Your task to perform on an android device: check storage Image 0: 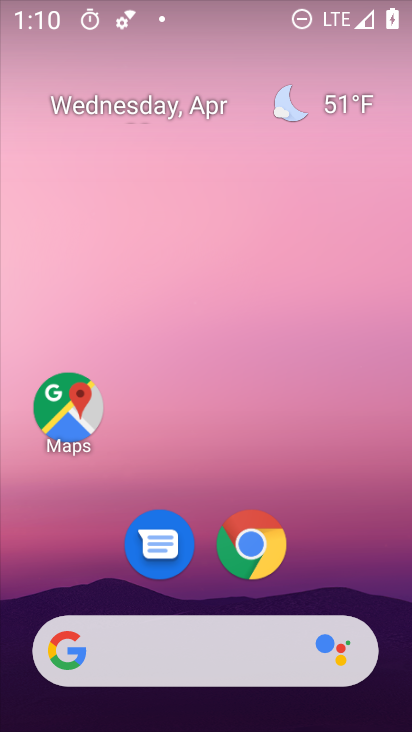
Step 0: drag from (357, 551) to (353, 98)
Your task to perform on an android device: check storage Image 1: 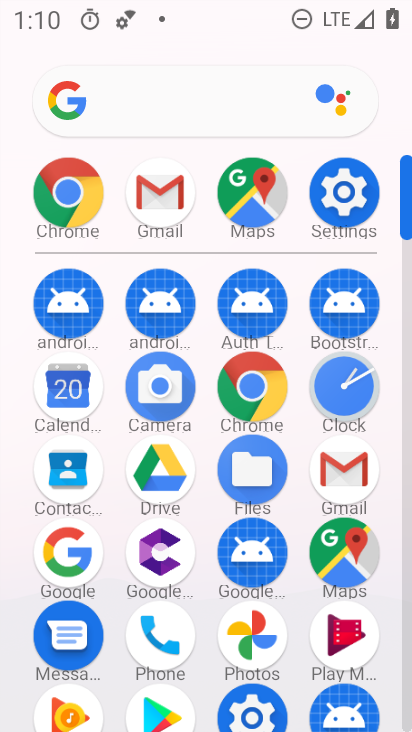
Step 1: click (356, 208)
Your task to perform on an android device: check storage Image 2: 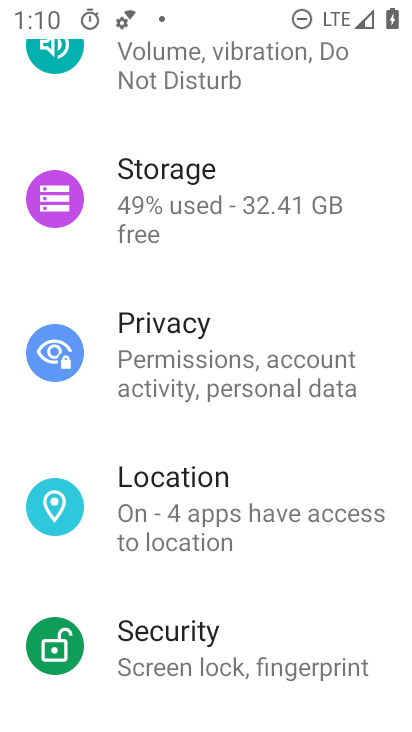
Step 2: drag from (371, 569) to (379, 433)
Your task to perform on an android device: check storage Image 3: 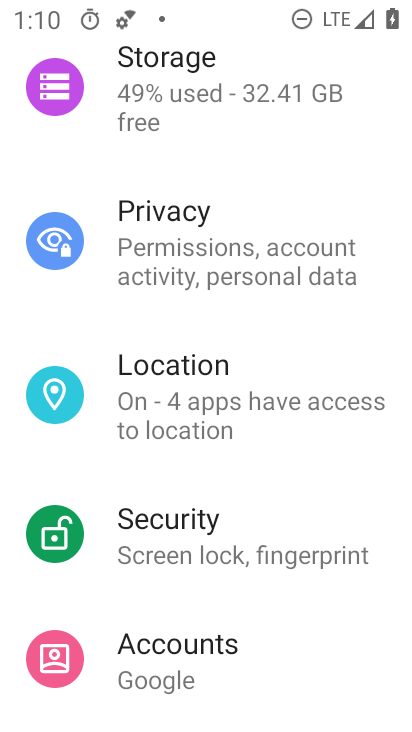
Step 3: drag from (383, 631) to (389, 473)
Your task to perform on an android device: check storage Image 4: 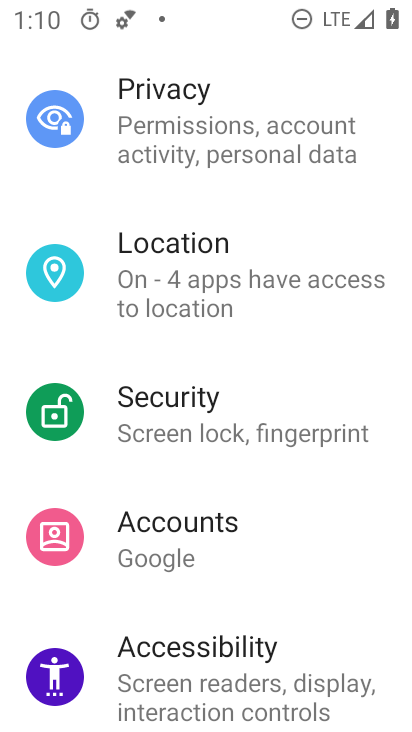
Step 4: drag from (356, 566) to (352, 379)
Your task to perform on an android device: check storage Image 5: 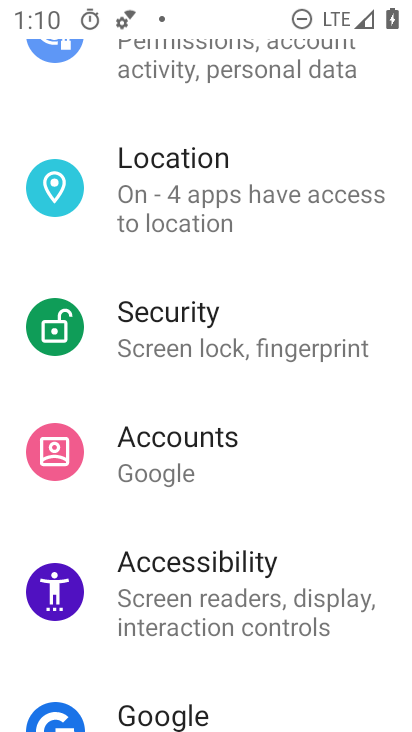
Step 5: drag from (374, 560) to (384, 404)
Your task to perform on an android device: check storage Image 6: 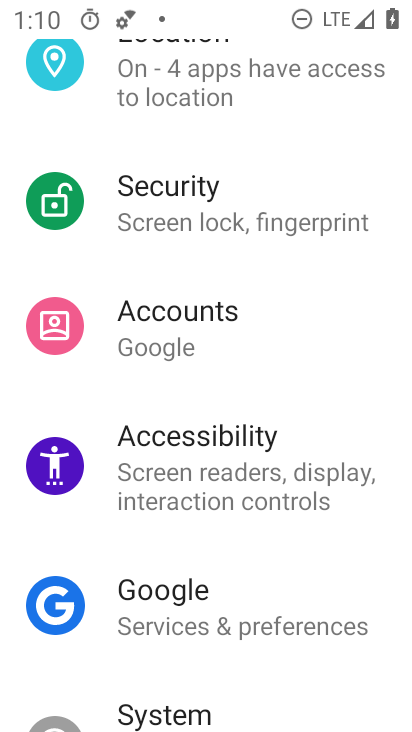
Step 6: drag from (373, 687) to (377, 579)
Your task to perform on an android device: check storage Image 7: 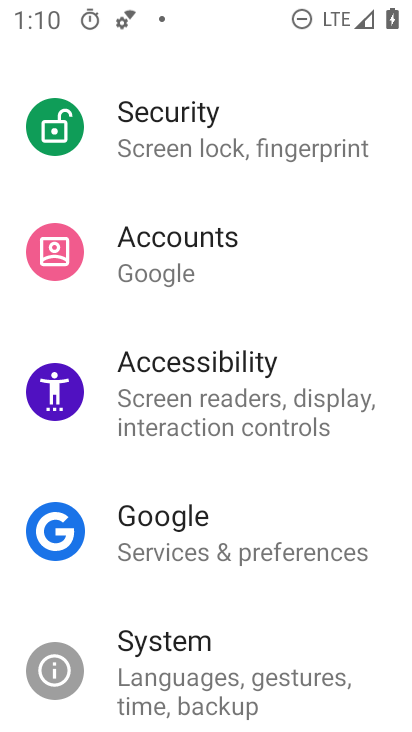
Step 7: drag from (360, 565) to (326, 383)
Your task to perform on an android device: check storage Image 8: 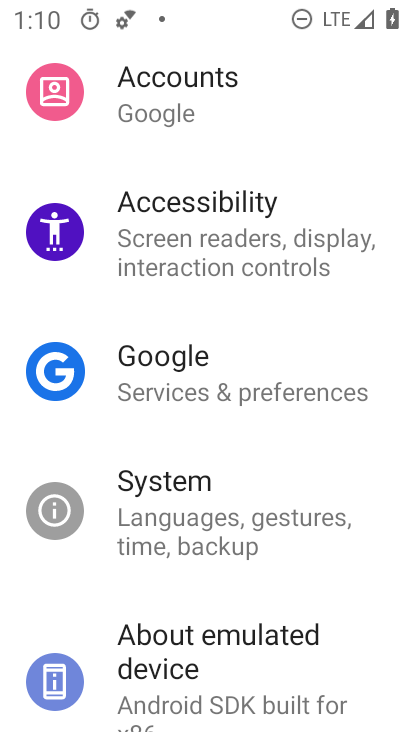
Step 8: drag from (367, 591) to (333, 381)
Your task to perform on an android device: check storage Image 9: 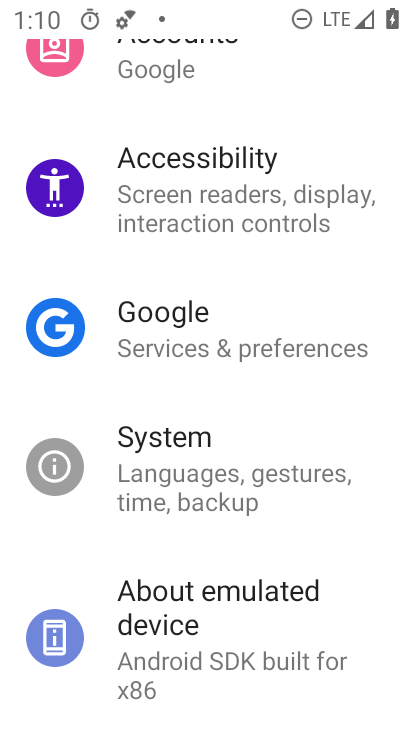
Step 9: drag from (392, 564) to (375, 399)
Your task to perform on an android device: check storage Image 10: 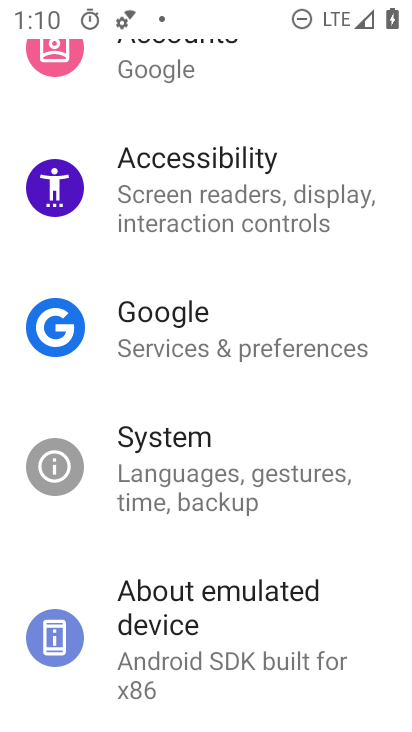
Step 10: drag from (386, 287) to (391, 484)
Your task to perform on an android device: check storage Image 11: 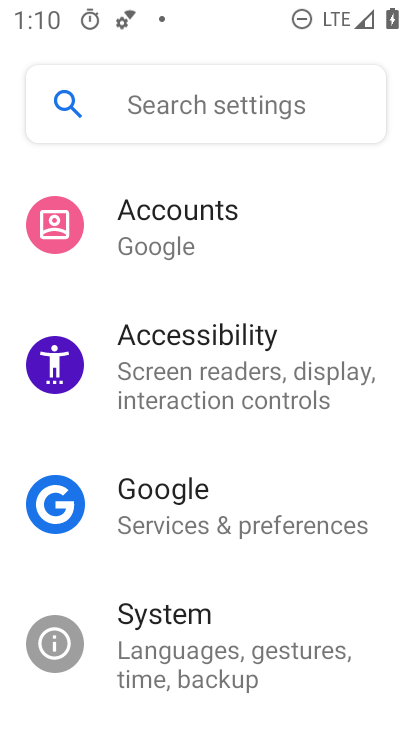
Step 11: drag from (379, 287) to (371, 471)
Your task to perform on an android device: check storage Image 12: 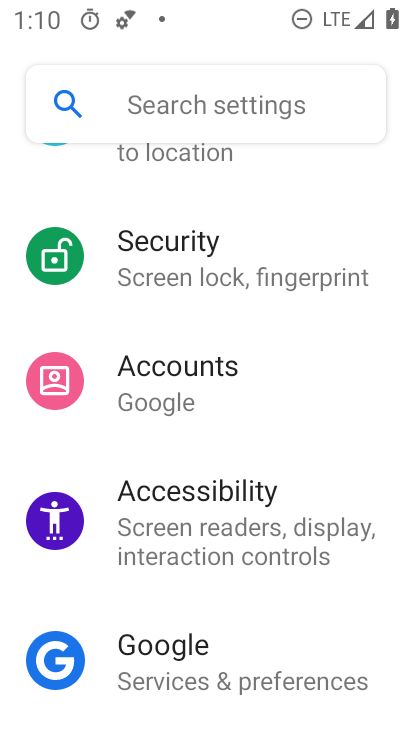
Step 12: drag from (371, 298) to (395, 473)
Your task to perform on an android device: check storage Image 13: 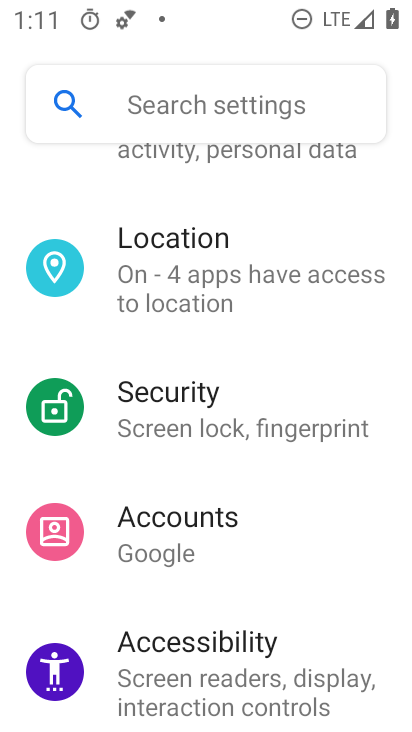
Step 13: drag from (376, 343) to (368, 502)
Your task to perform on an android device: check storage Image 14: 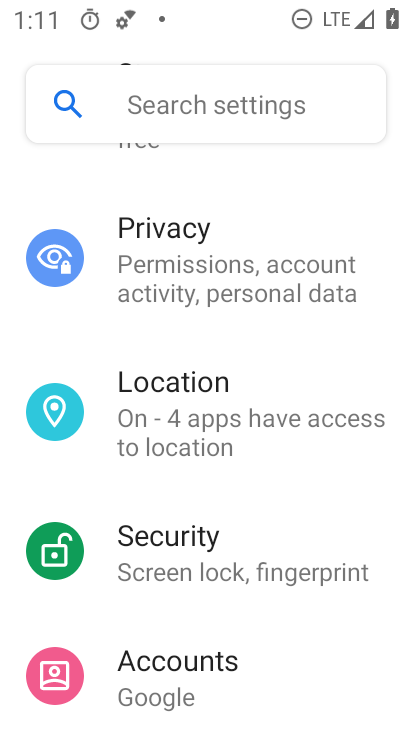
Step 14: drag from (363, 362) to (363, 487)
Your task to perform on an android device: check storage Image 15: 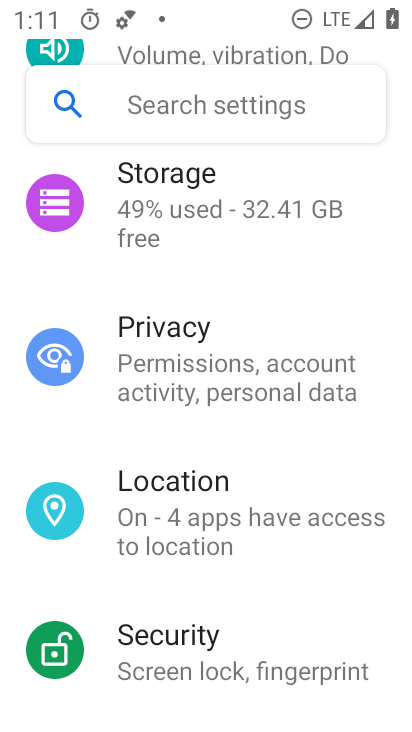
Step 15: drag from (361, 331) to (344, 476)
Your task to perform on an android device: check storage Image 16: 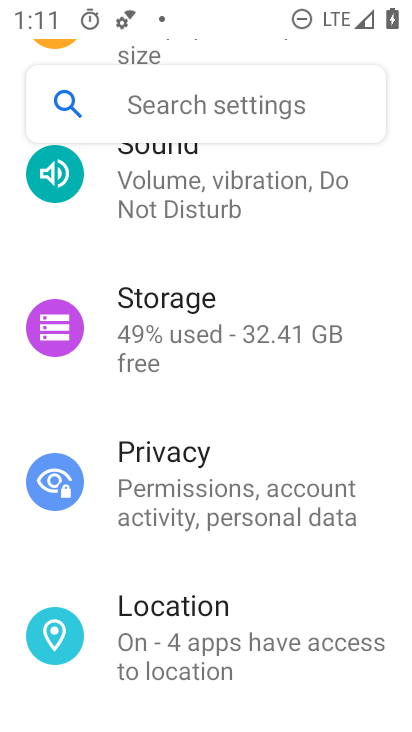
Step 16: click (277, 324)
Your task to perform on an android device: check storage Image 17: 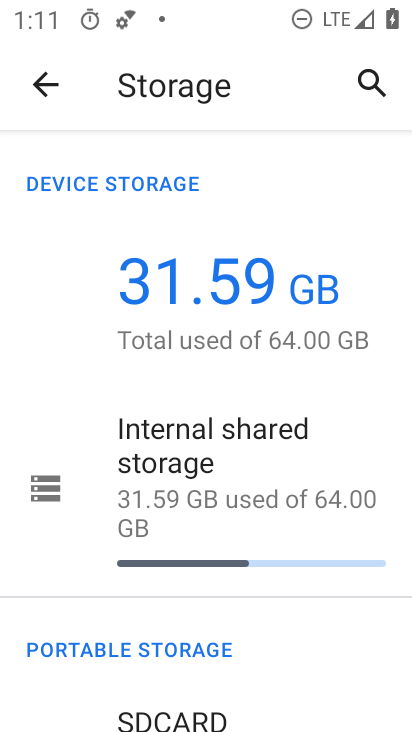
Step 17: task complete